Your task to perform on an android device: move a message to another label in the gmail app Image 0: 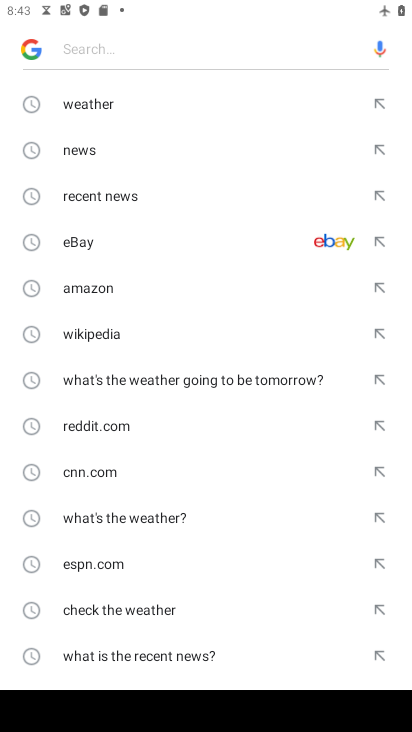
Step 0: press home button
Your task to perform on an android device: move a message to another label in the gmail app Image 1: 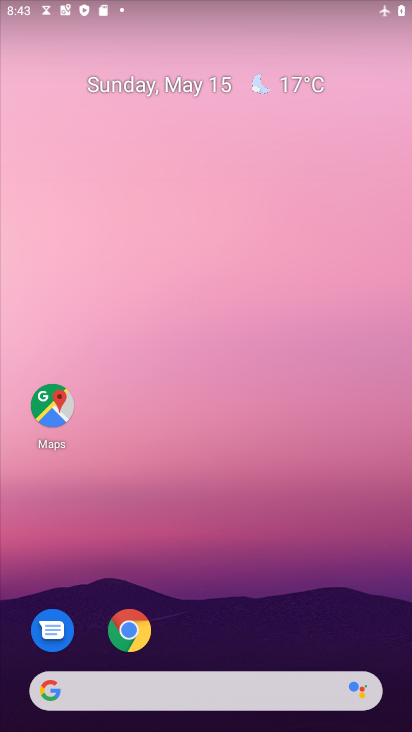
Step 1: drag from (197, 594) to (158, 42)
Your task to perform on an android device: move a message to another label in the gmail app Image 2: 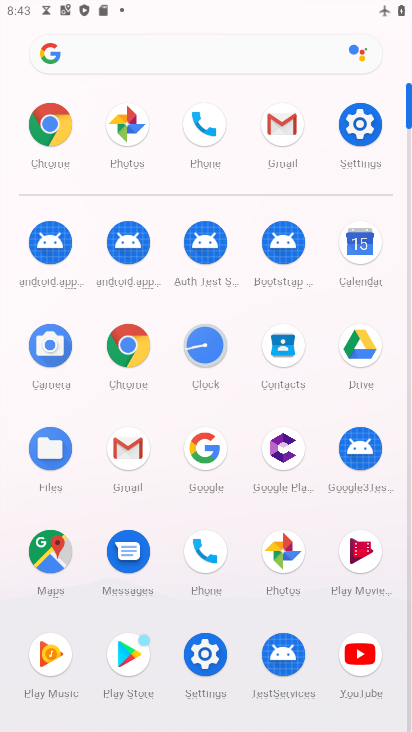
Step 2: click (293, 109)
Your task to perform on an android device: move a message to another label in the gmail app Image 3: 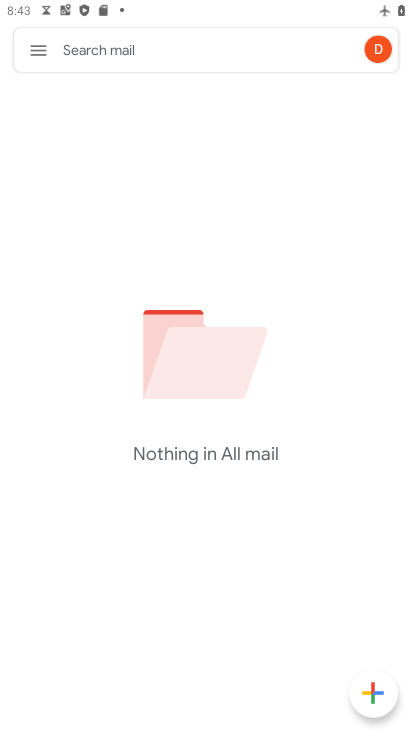
Step 3: task complete